Your task to perform on an android device: Go to display settings Image 0: 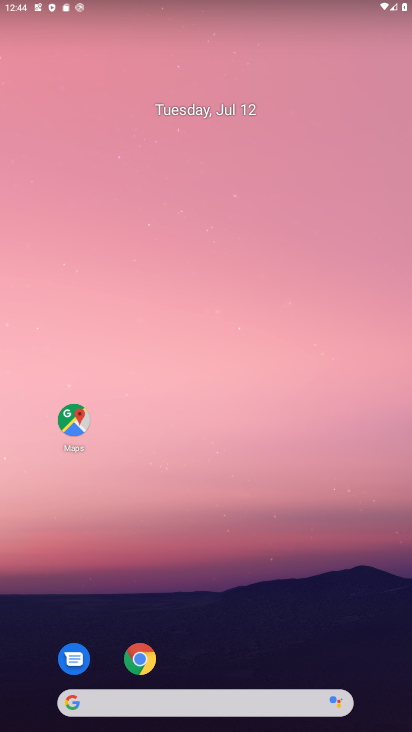
Step 0: drag from (202, 731) to (202, 87)
Your task to perform on an android device: Go to display settings Image 1: 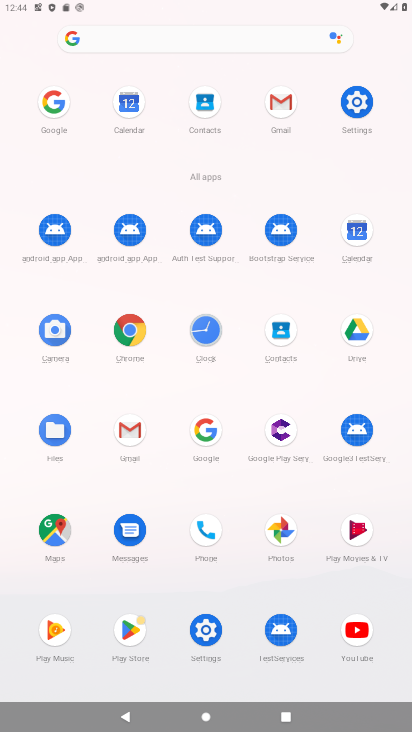
Step 1: click (355, 105)
Your task to perform on an android device: Go to display settings Image 2: 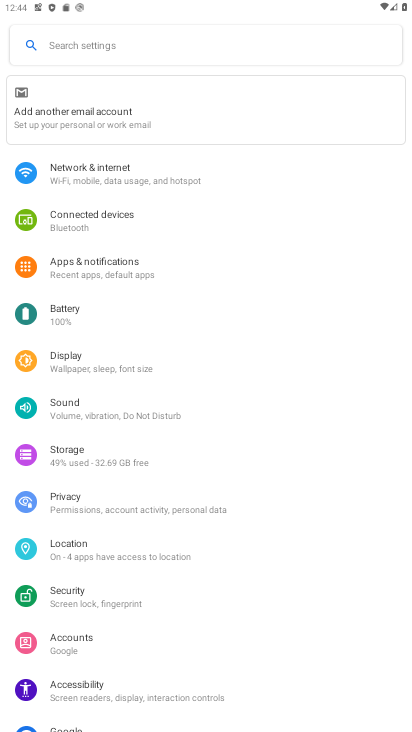
Step 2: click (80, 361)
Your task to perform on an android device: Go to display settings Image 3: 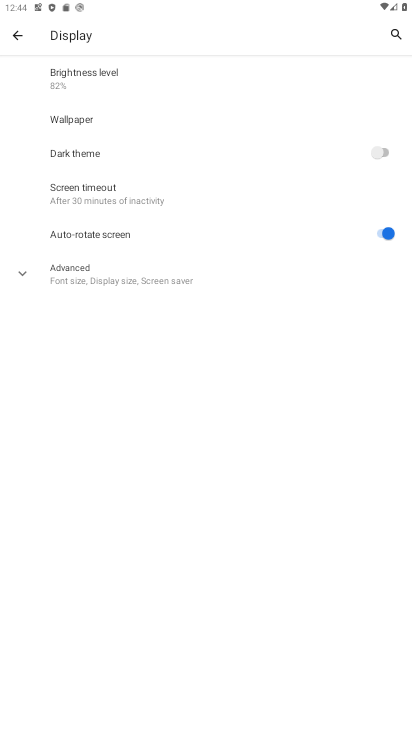
Step 3: task complete